Your task to perform on an android device: toggle sleep mode Image 0: 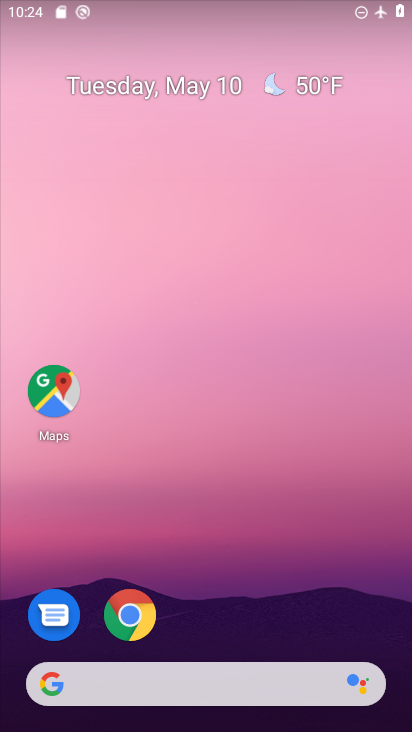
Step 0: drag from (379, 629) to (296, 39)
Your task to perform on an android device: toggle sleep mode Image 1: 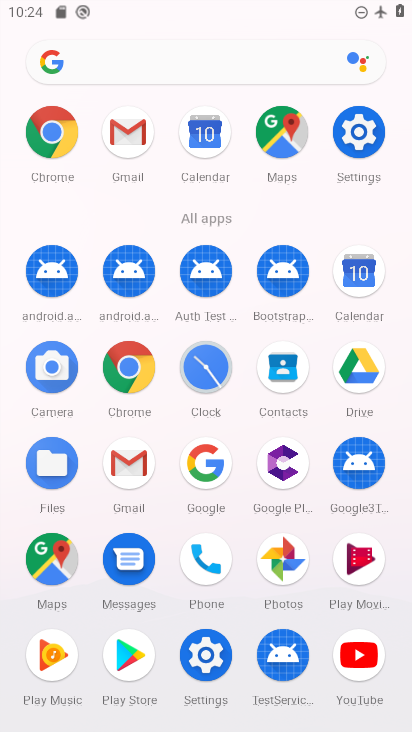
Step 1: click (206, 658)
Your task to perform on an android device: toggle sleep mode Image 2: 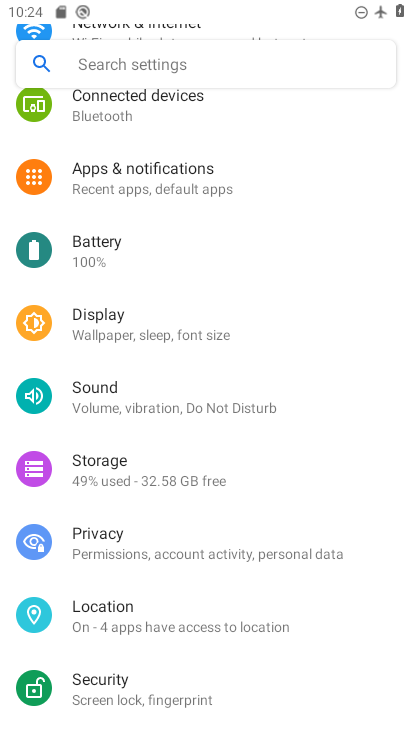
Step 2: click (122, 324)
Your task to perform on an android device: toggle sleep mode Image 3: 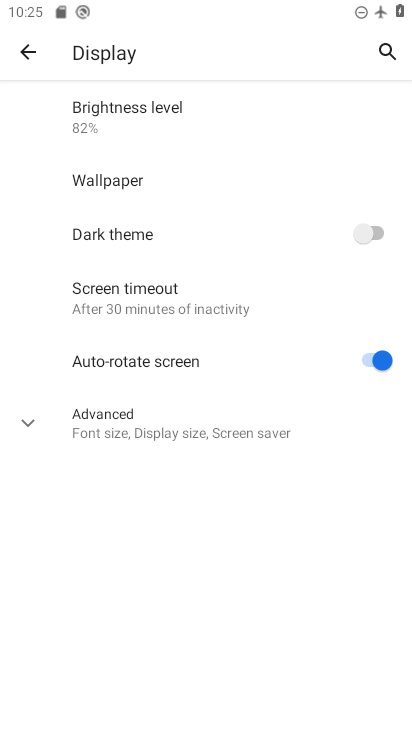
Step 3: click (27, 422)
Your task to perform on an android device: toggle sleep mode Image 4: 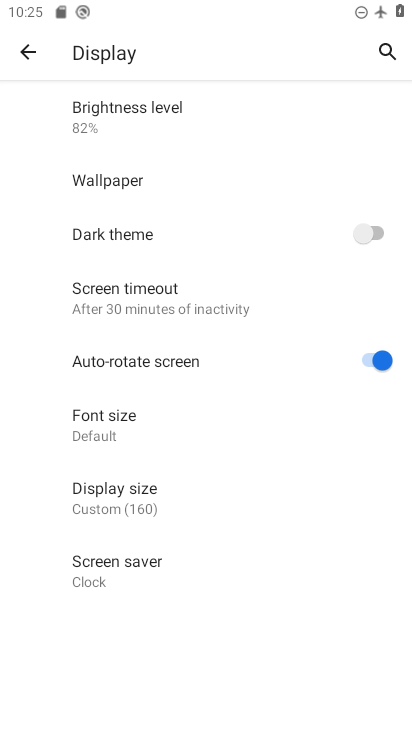
Step 4: task complete